Your task to perform on an android device: Go to Maps Image 0: 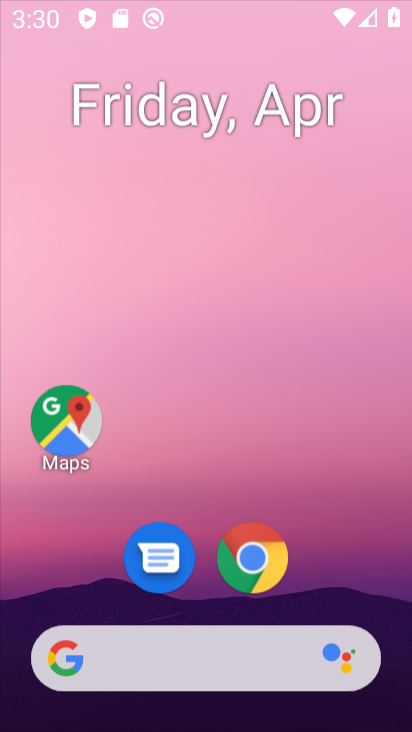
Step 0: drag from (311, 590) to (281, 125)
Your task to perform on an android device: Go to Maps Image 1: 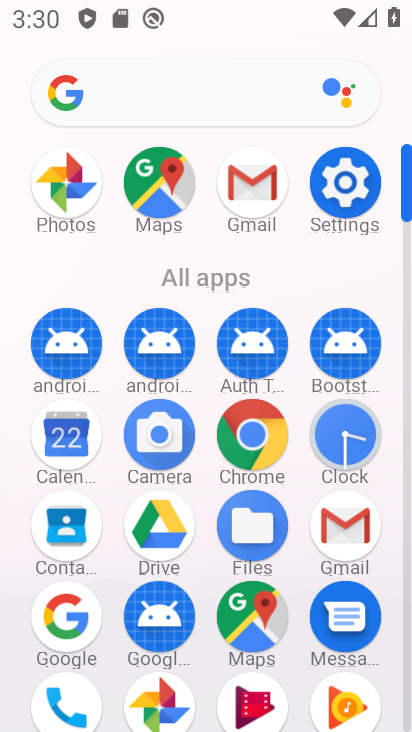
Step 1: click (255, 593)
Your task to perform on an android device: Go to Maps Image 2: 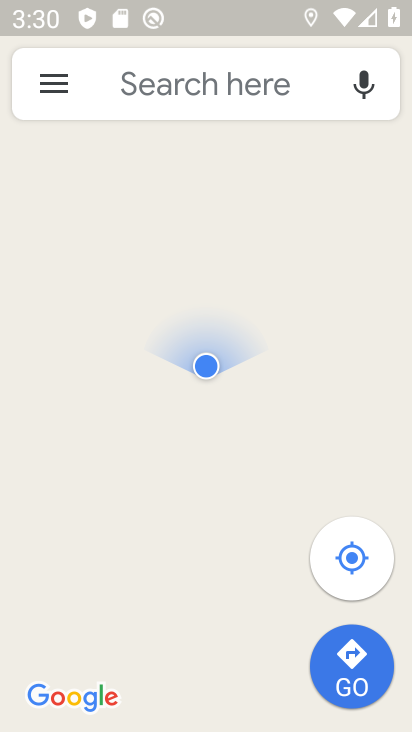
Step 2: task complete